Your task to perform on an android device: Open Chrome and go to settings Image 0: 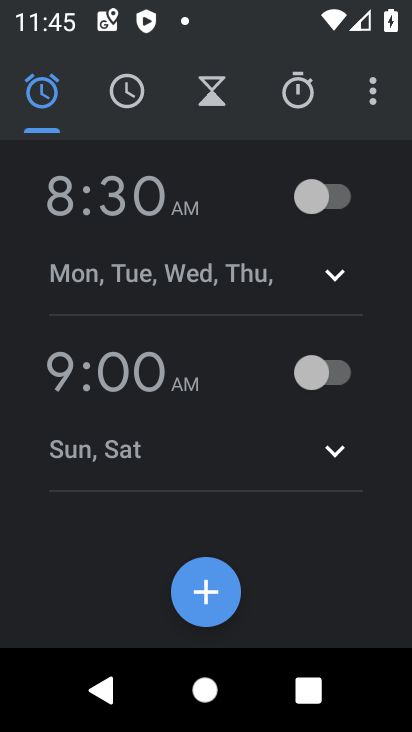
Step 0: press home button
Your task to perform on an android device: Open Chrome and go to settings Image 1: 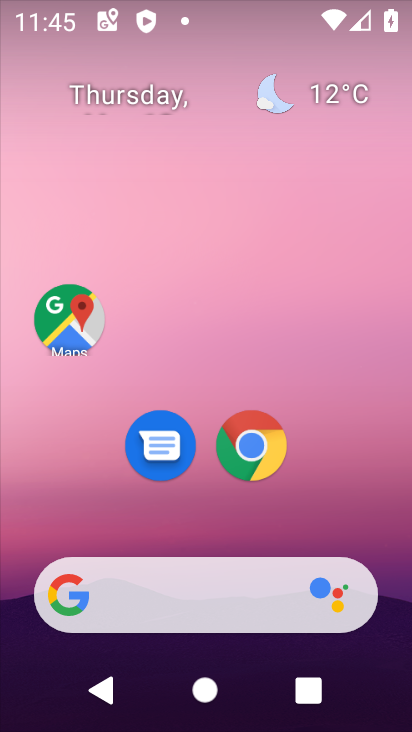
Step 1: click (247, 448)
Your task to perform on an android device: Open Chrome and go to settings Image 2: 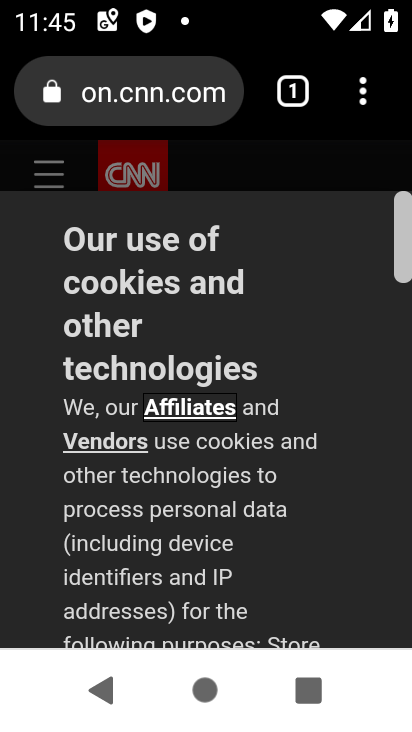
Step 2: task complete